Your task to perform on an android device: Add "logitech g pro" to the cart on bestbuy.com Image 0: 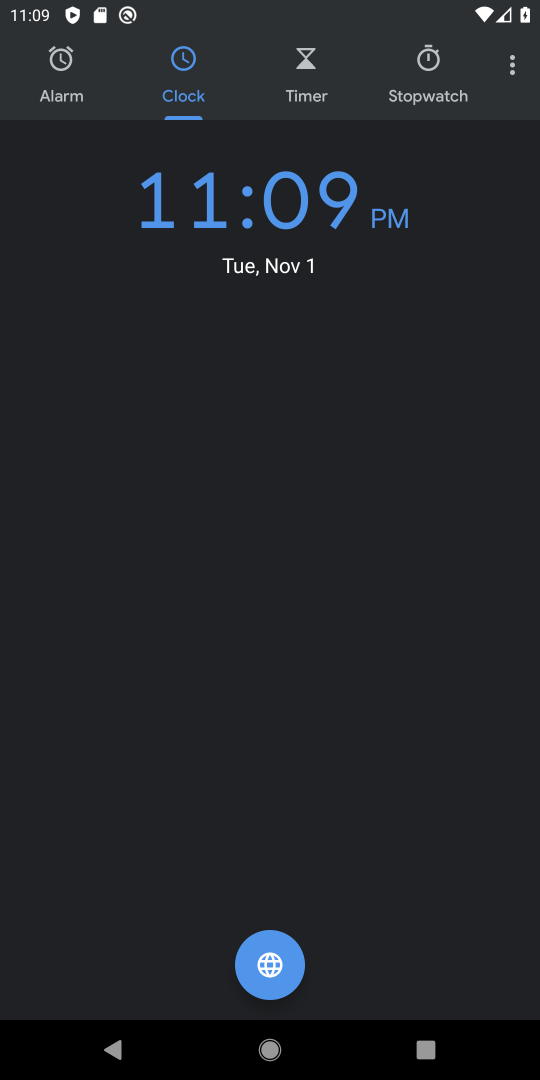
Step 0: press home button
Your task to perform on an android device: Add "logitech g pro" to the cart on bestbuy.com Image 1: 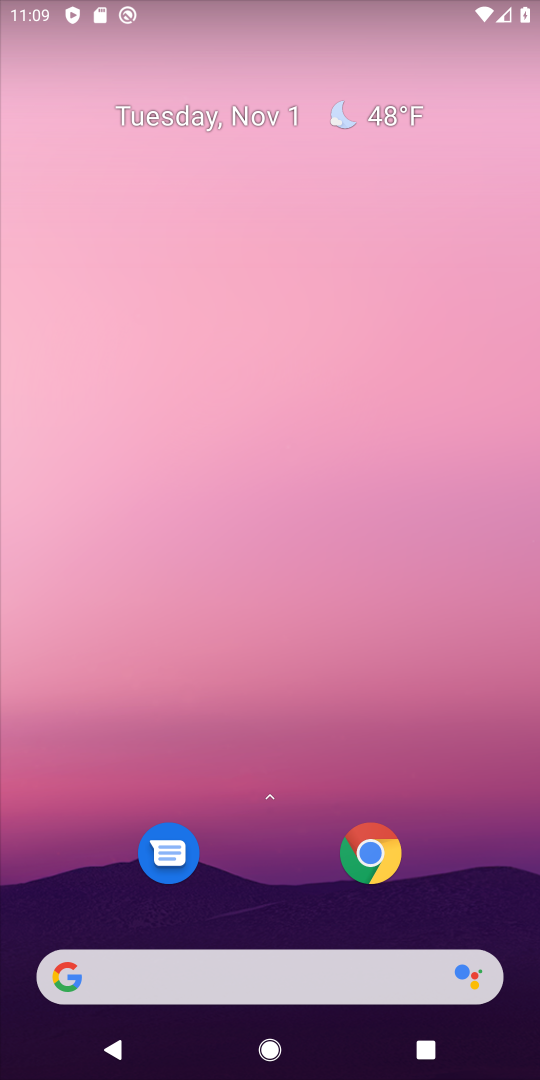
Step 1: drag from (346, 992) to (305, 140)
Your task to perform on an android device: Add "logitech g pro" to the cart on bestbuy.com Image 2: 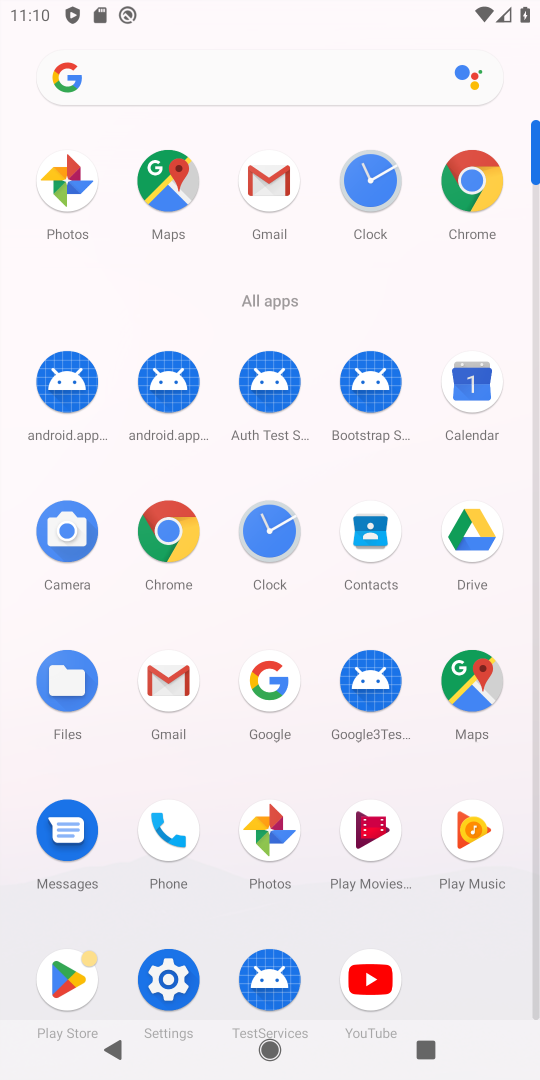
Step 2: click (172, 523)
Your task to perform on an android device: Add "logitech g pro" to the cart on bestbuy.com Image 3: 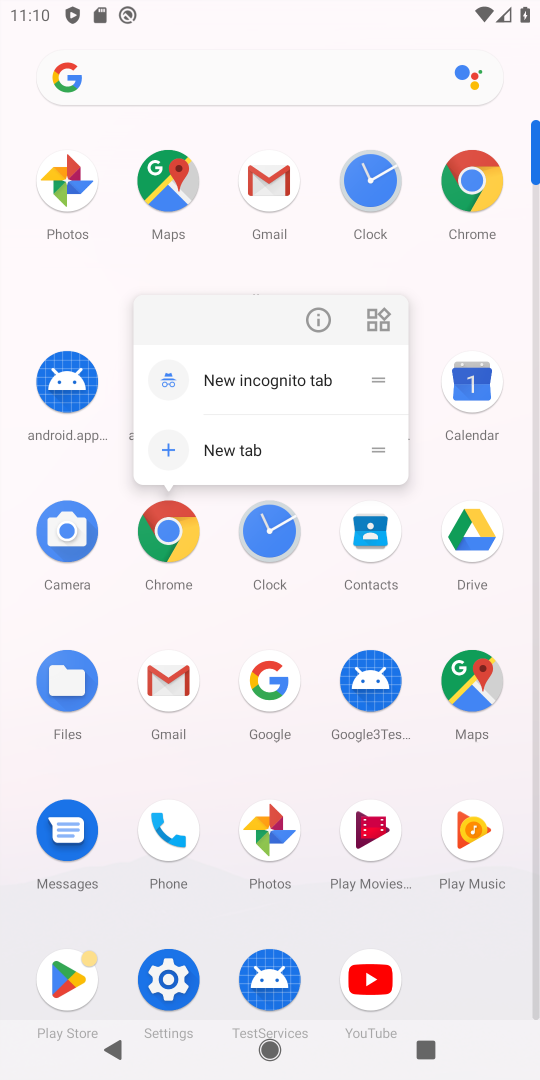
Step 3: click (159, 527)
Your task to perform on an android device: Add "logitech g pro" to the cart on bestbuy.com Image 4: 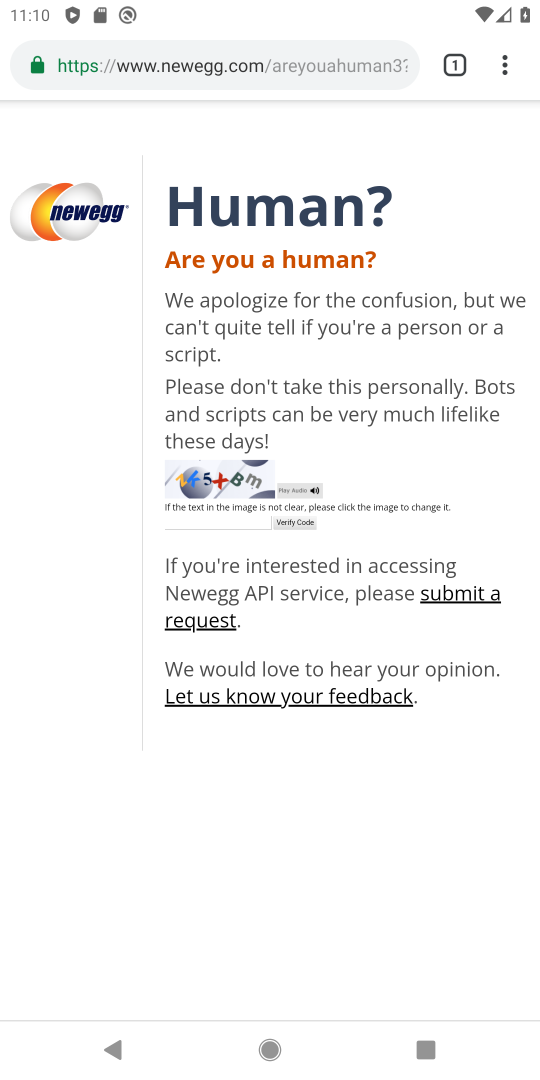
Step 4: click (224, 62)
Your task to perform on an android device: Add "logitech g pro" to the cart on bestbuy.com Image 5: 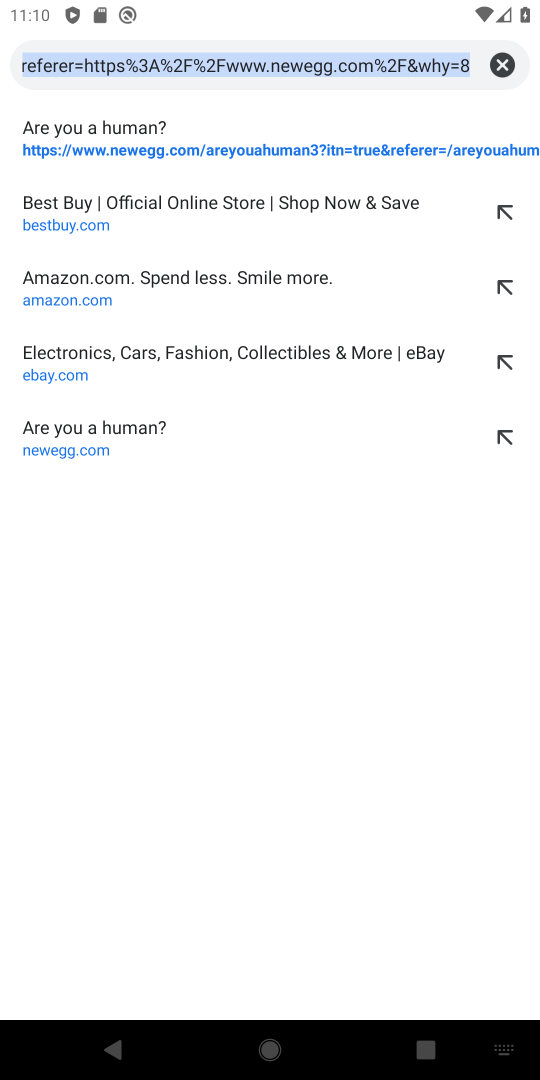
Step 5: click (504, 63)
Your task to perform on an android device: Add "logitech g pro" to the cart on bestbuy.com Image 6: 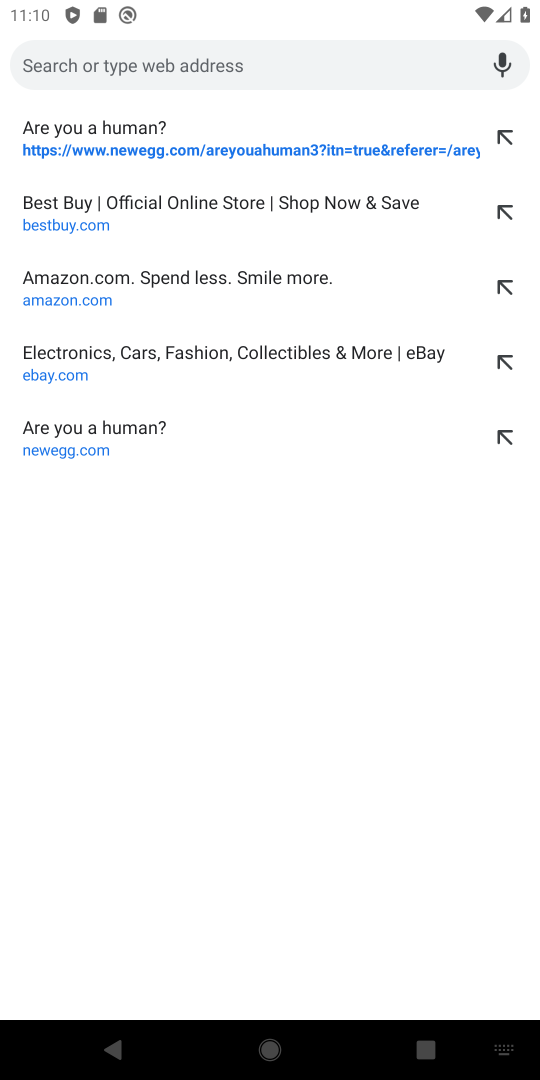
Step 6: type "bestbuy.com"
Your task to perform on an android device: Add "logitech g pro" to the cart on bestbuy.com Image 7: 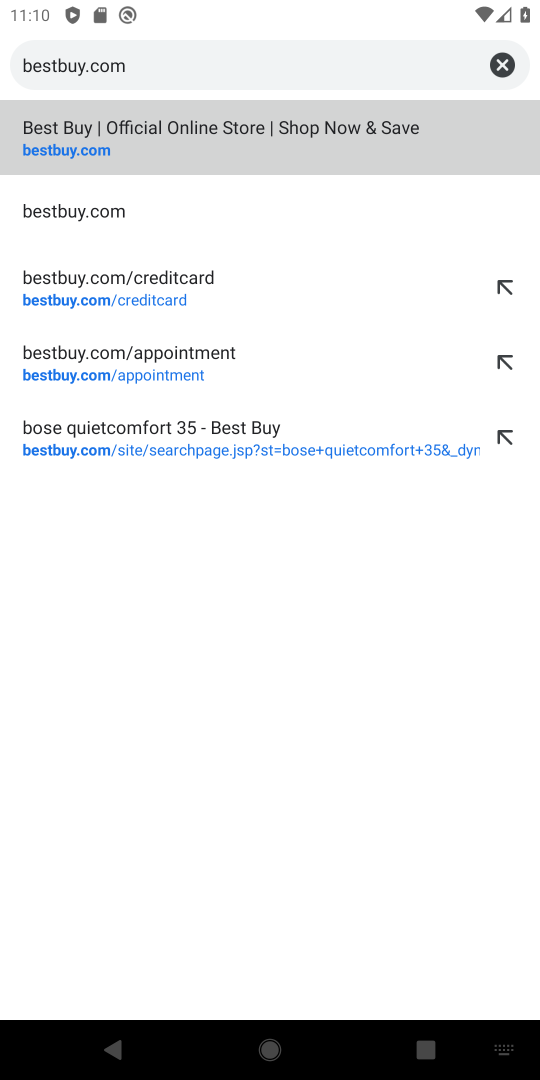
Step 7: click (75, 152)
Your task to perform on an android device: Add "logitech g pro" to the cart on bestbuy.com Image 8: 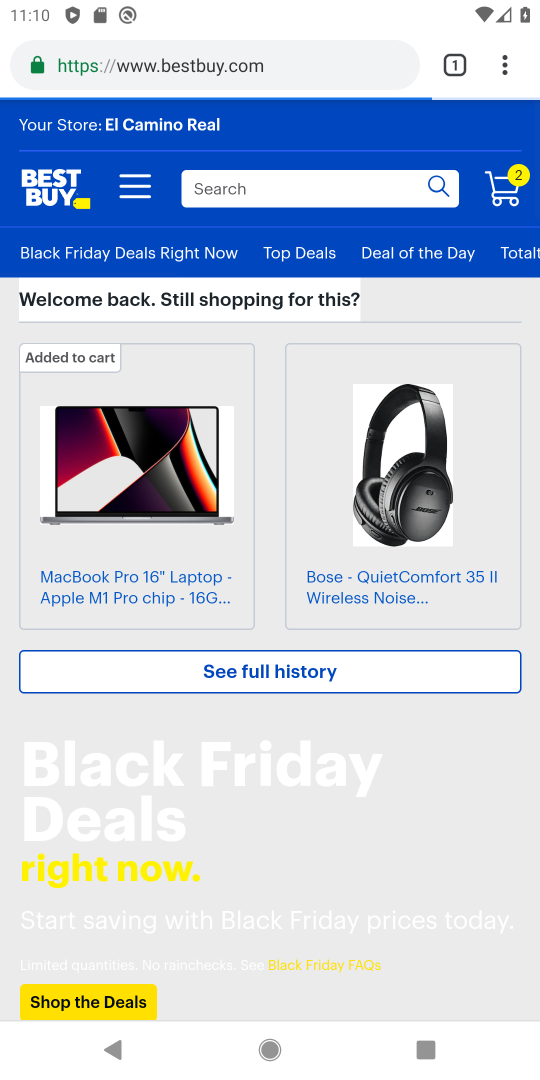
Step 8: click (302, 176)
Your task to perform on an android device: Add "logitech g pro" to the cart on bestbuy.com Image 9: 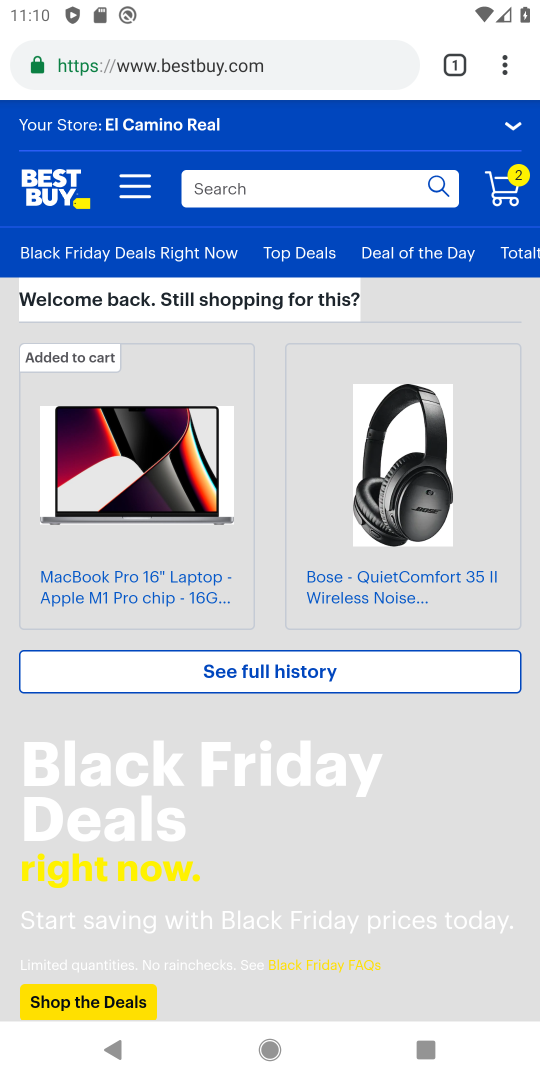
Step 9: click (330, 190)
Your task to perform on an android device: Add "logitech g pro" to the cart on bestbuy.com Image 10: 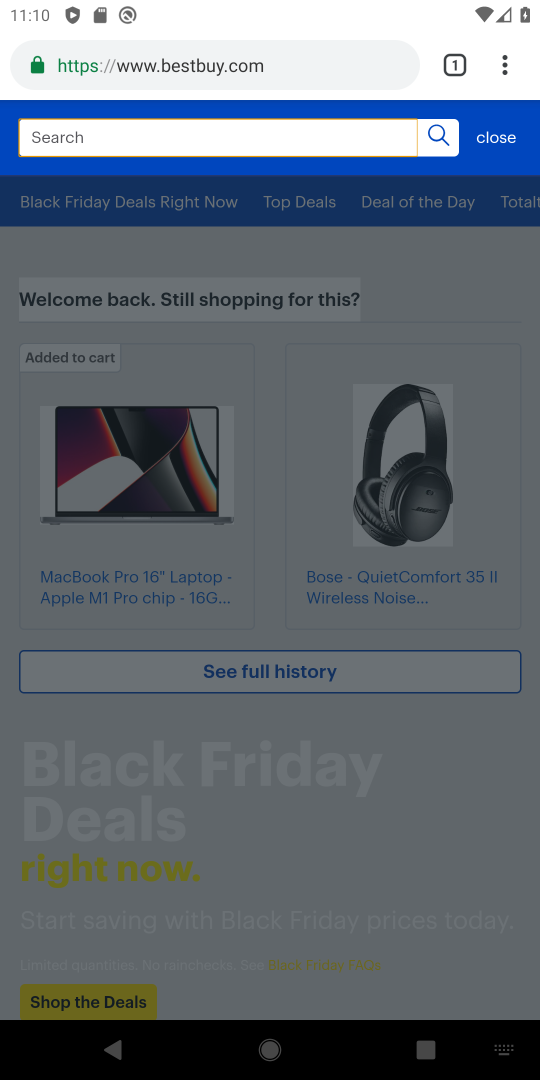
Step 10: type "logitech g pro"
Your task to perform on an android device: Add "logitech g pro" to the cart on bestbuy.com Image 11: 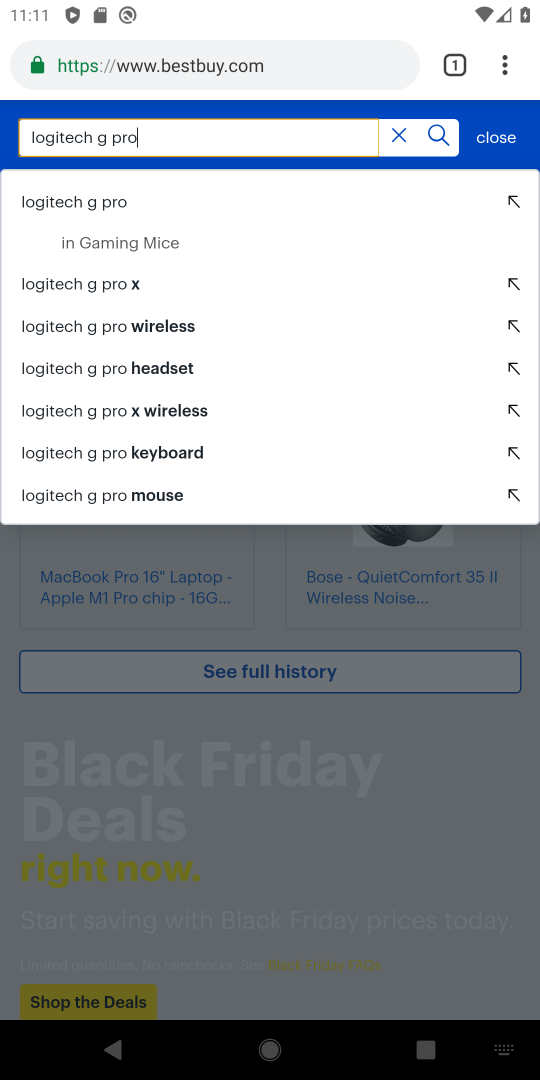
Step 11: click (48, 192)
Your task to perform on an android device: Add "logitech g pro" to the cart on bestbuy.com Image 12: 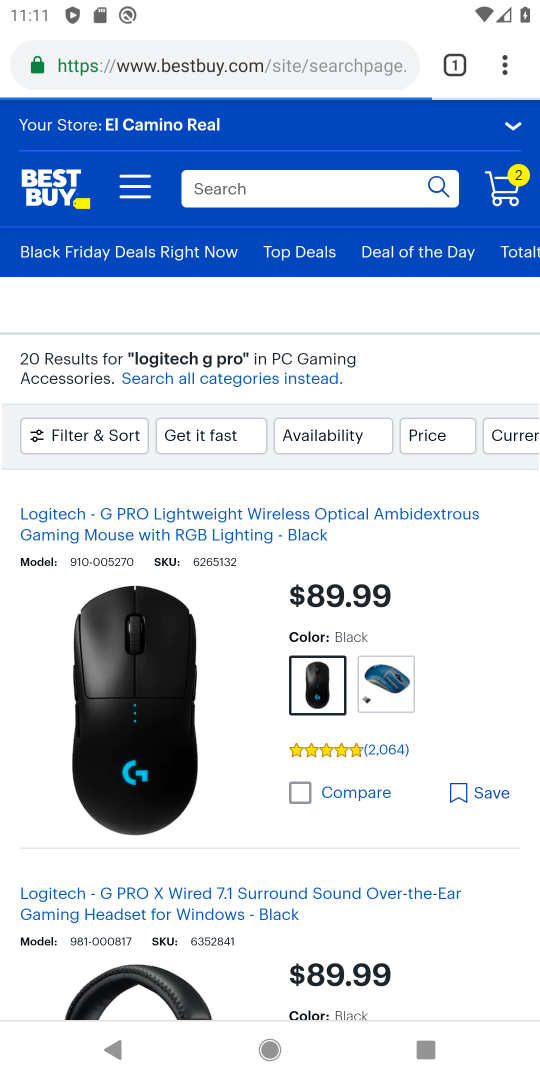
Step 12: click (234, 685)
Your task to perform on an android device: Add "logitech g pro" to the cart on bestbuy.com Image 13: 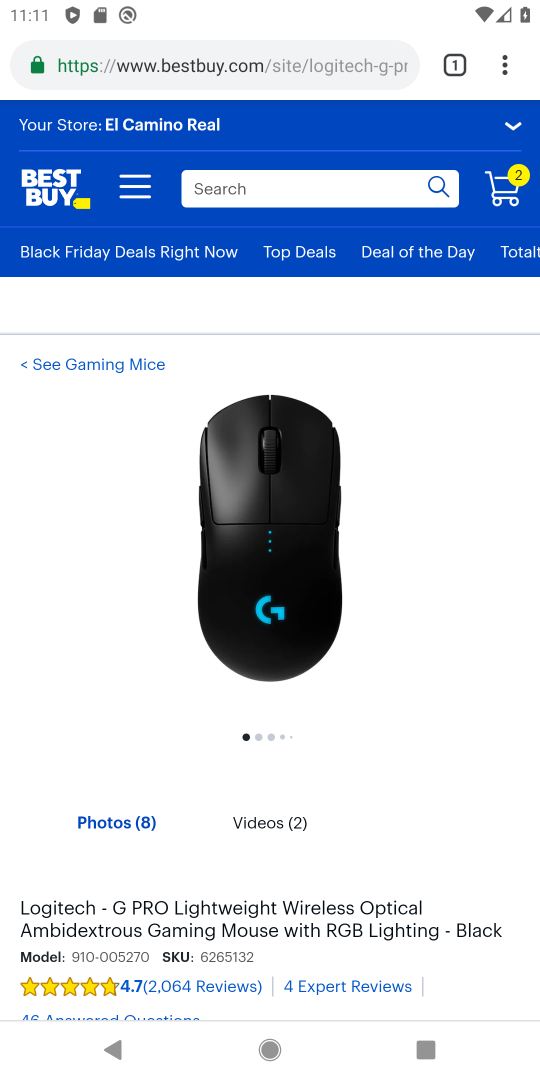
Step 13: drag from (286, 785) to (330, 355)
Your task to perform on an android device: Add "logitech g pro" to the cart on bestbuy.com Image 14: 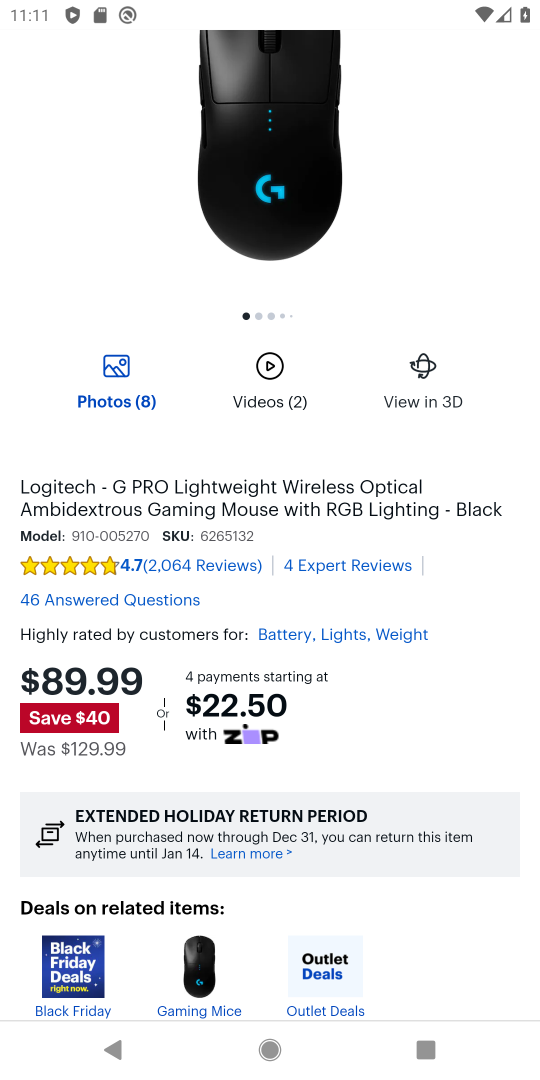
Step 14: drag from (411, 919) to (371, 434)
Your task to perform on an android device: Add "logitech g pro" to the cart on bestbuy.com Image 15: 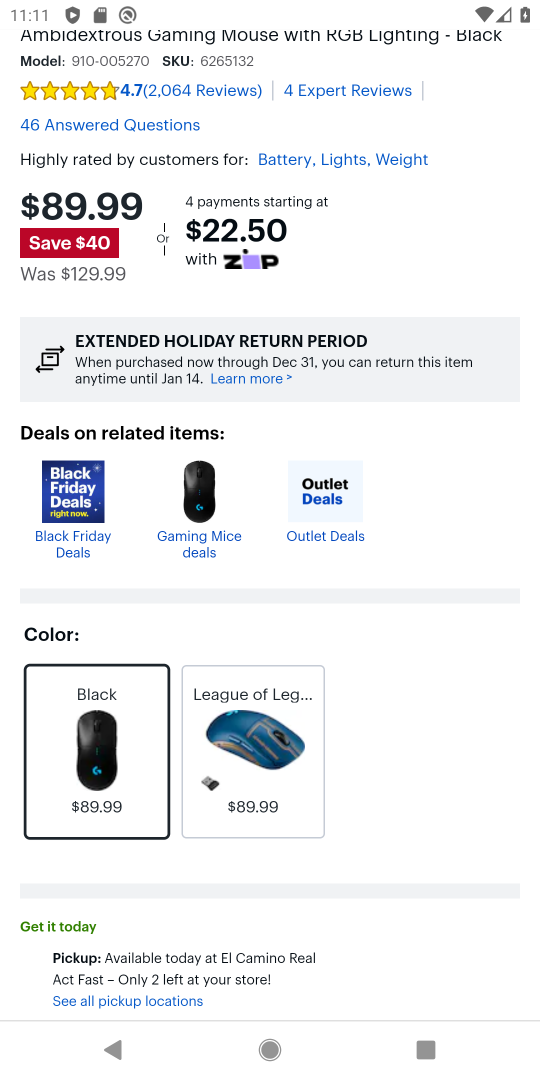
Step 15: drag from (382, 929) to (405, 578)
Your task to perform on an android device: Add "logitech g pro" to the cart on bestbuy.com Image 16: 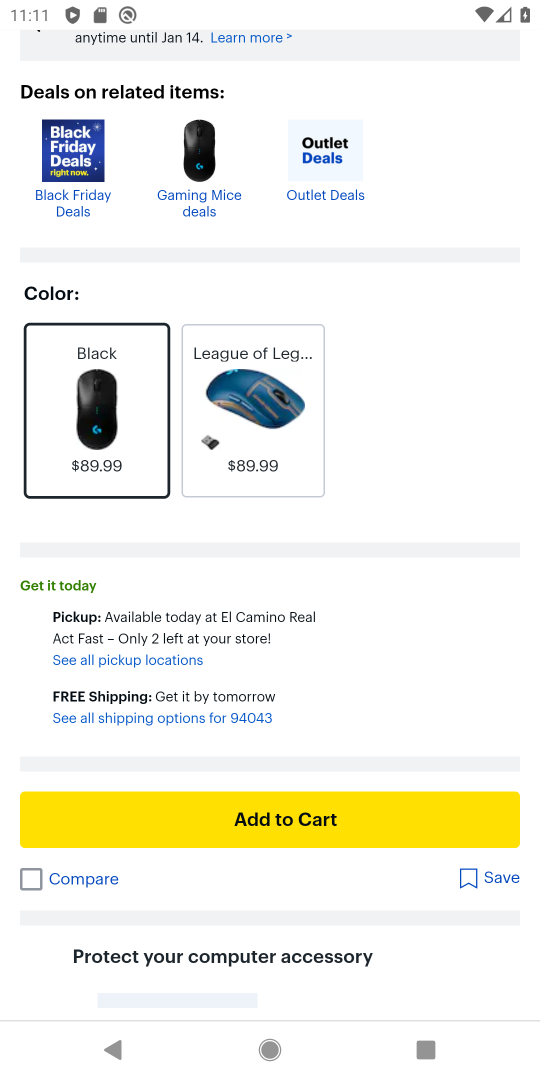
Step 16: click (310, 814)
Your task to perform on an android device: Add "logitech g pro" to the cart on bestbuy.com Image 17: 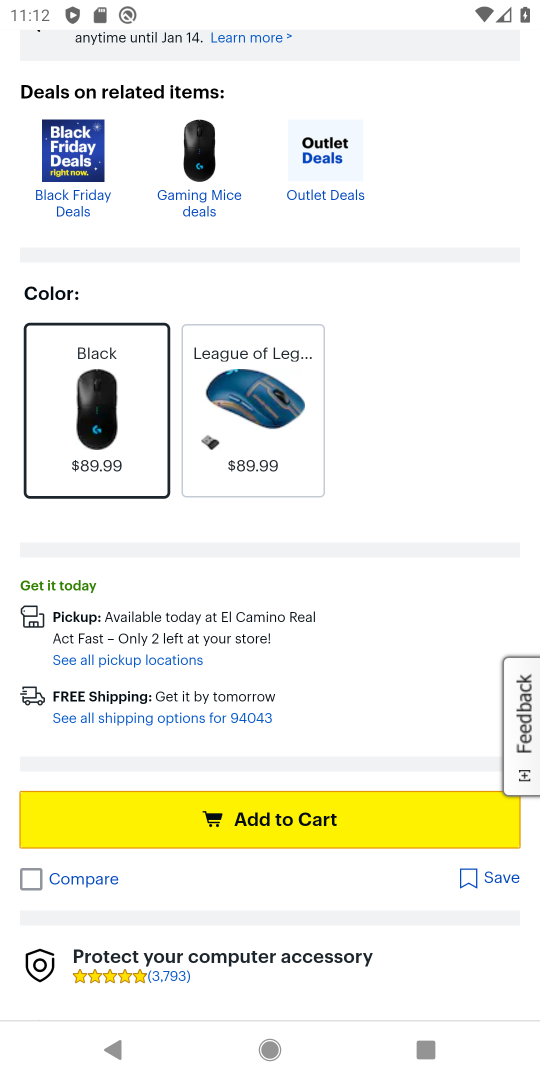
Step 17: task complete